Your task to perform on an android device: change timer sound Image 0: 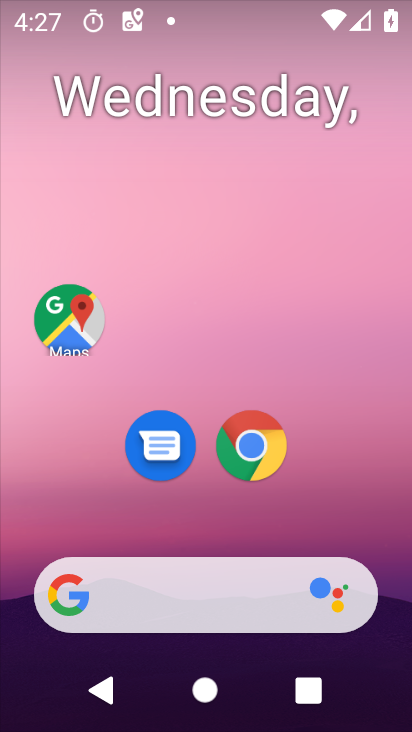
Step 0: drag from (200, 542) to (226, 110)
Your task to perform on an android device: change timer sound Image 1: 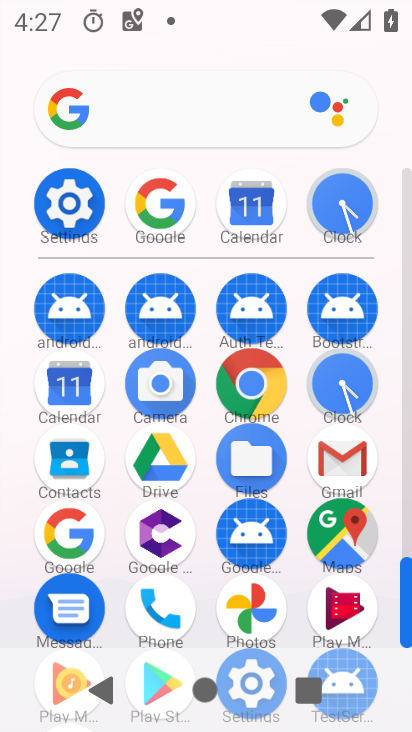
Step 1: click (350, 381)
Your task to perform on an android device: change timer sound Image 2: 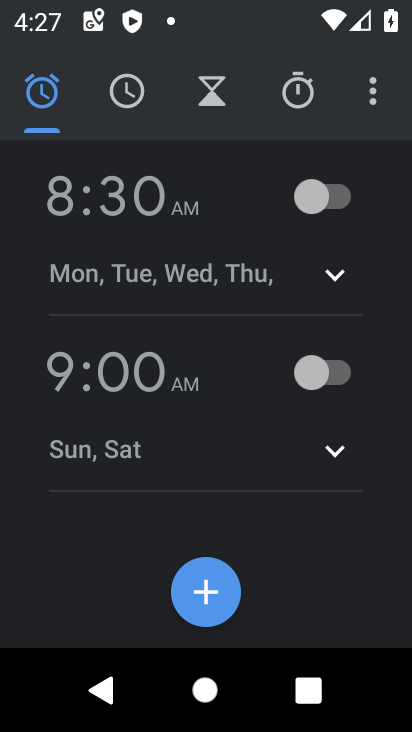
Step 2: click (367, 78)
Your task to perform on an android device: change timer sound Image 3: 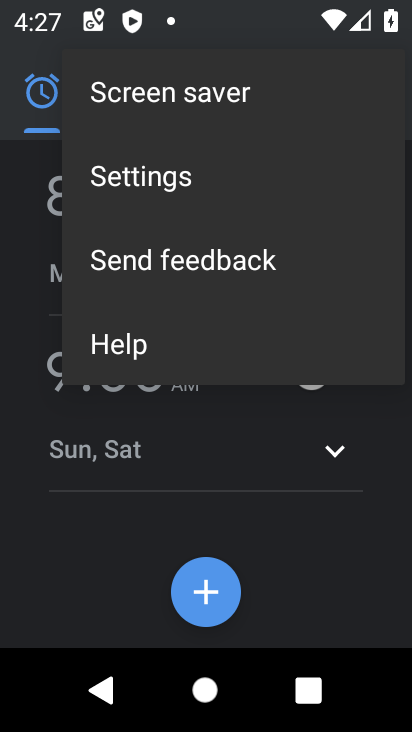
Step 3: click (155, 182)
Your task to perform on an android device: change timer sound Image 4: 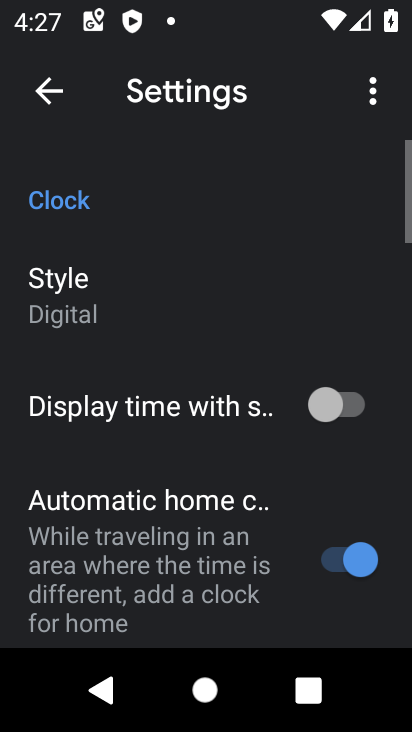
Step 4: drag from (204, 496) to (239, 66)
Your task to perform on an android device: change timer sound Image 5: 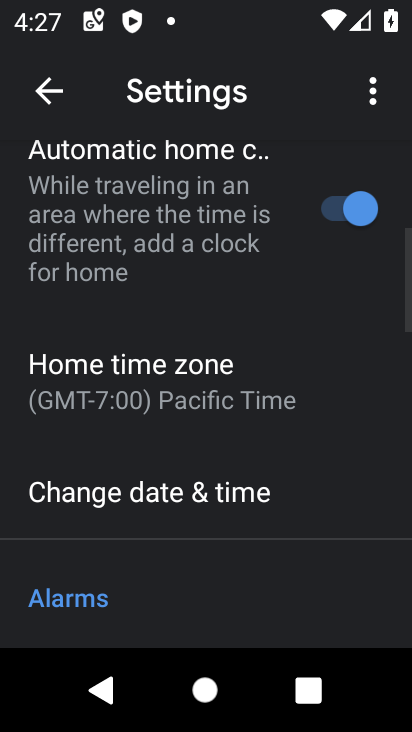
Step 5: drag from (184, 541) to (214, 96)
Your task to perform on an android device: change timer sound Image 6: 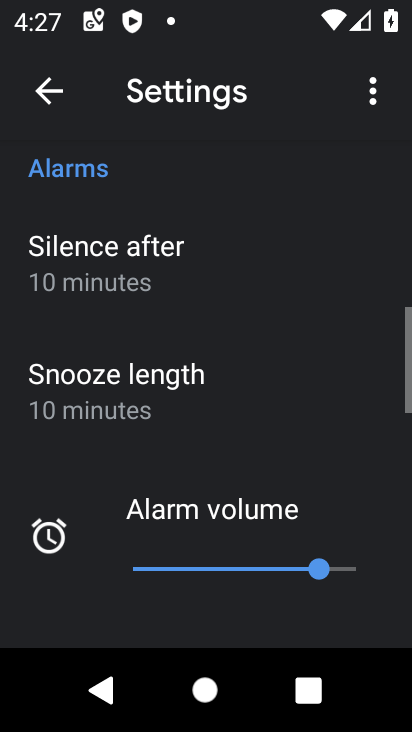
Step 6: drag from (250, 528) to (239, 131)
Your task to perform on an android device: change timer sound Image 7: 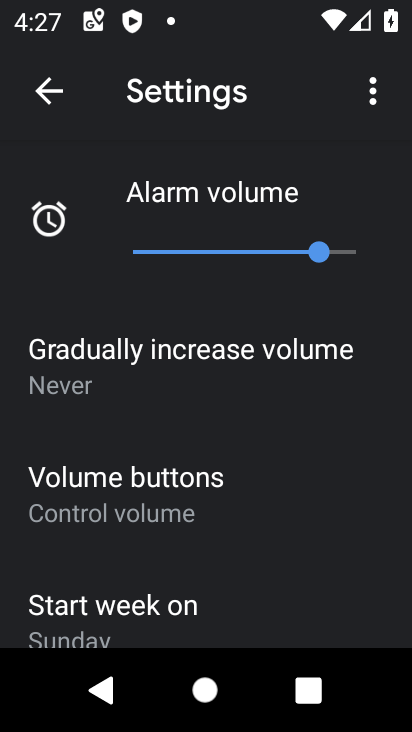
Step 7: drag from (208, 604) to (225, 183)
Your task to perform on an android device: change timer sound Image 8: 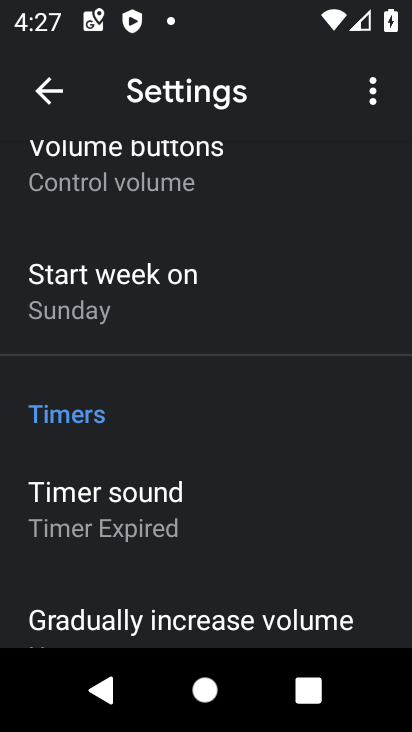
Step 8: click (156, 489)
Your task to perform on an android device: change timer sound Image 9: 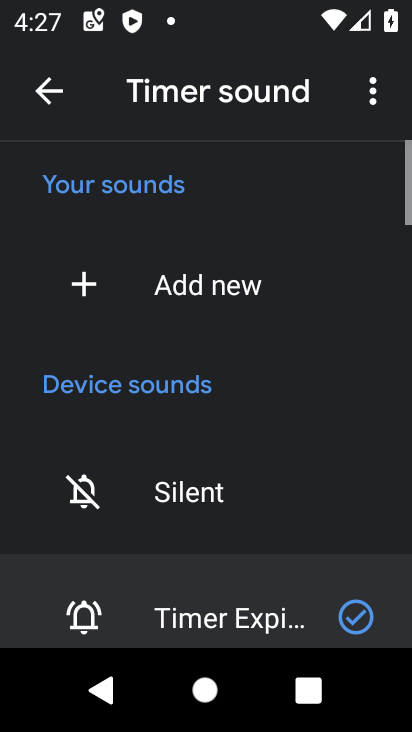
Step 9: click (195, 505)
Your task to perform on an android device: change timer sound Image 10: 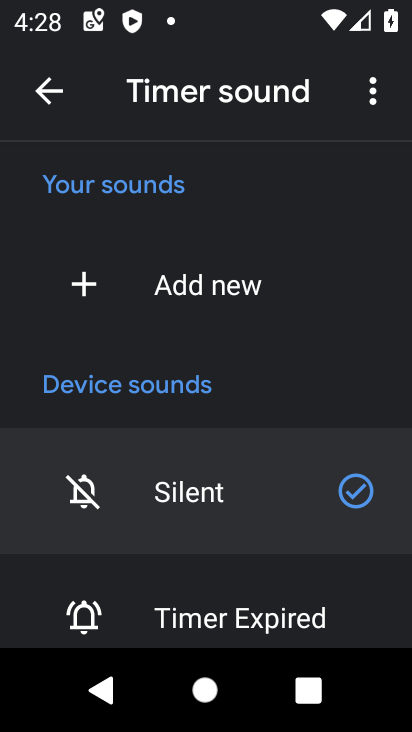
Step 10: task complete